Your task to perform on an android device: Open ESPN.com Image 0: 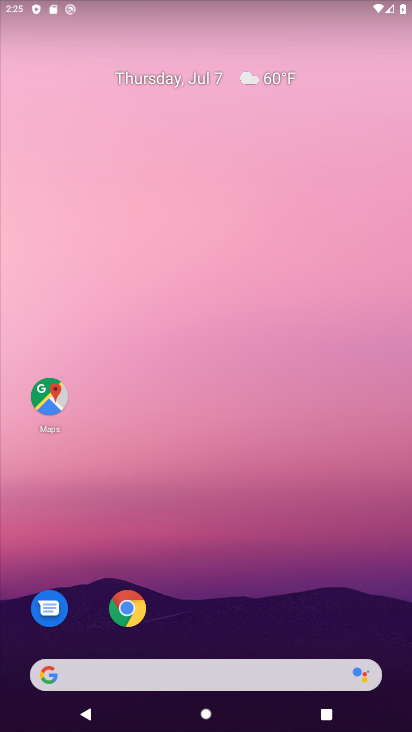
Step 0: click (124, 607)
Your task to perform on an android device: Open ESPN.com Image 1: 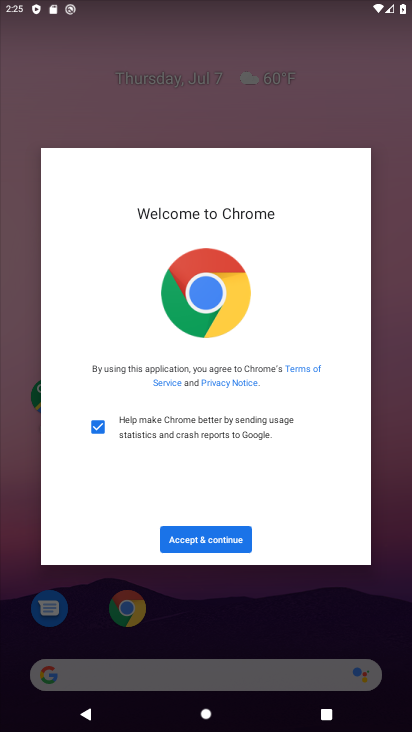
Step 1: click (205, 539)
Your task to perform on an android device: Open ESPN.com Image 2: 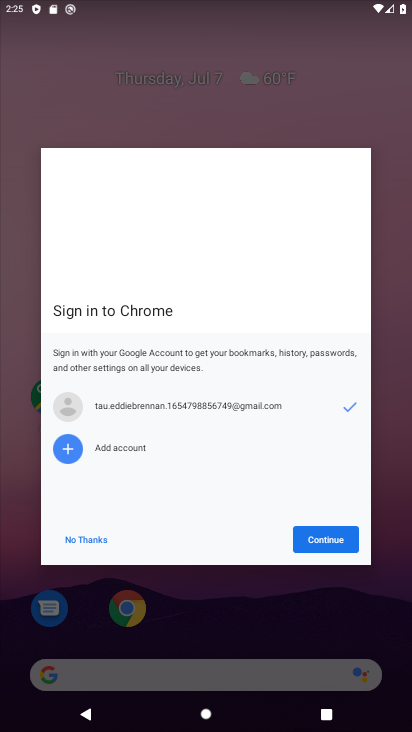
Step 2: click (325, 539)
Your task to perform on an android device: Open ESPN.com Image 3: 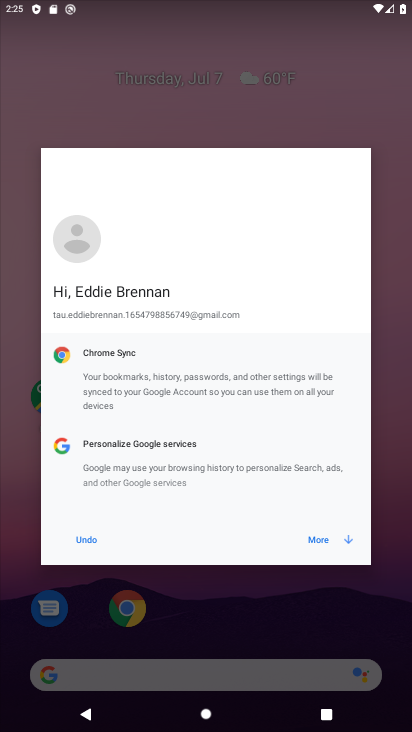
Step 3: click (329, 536)
Your task to perform on an android device: Open ESPN.com Image 4: 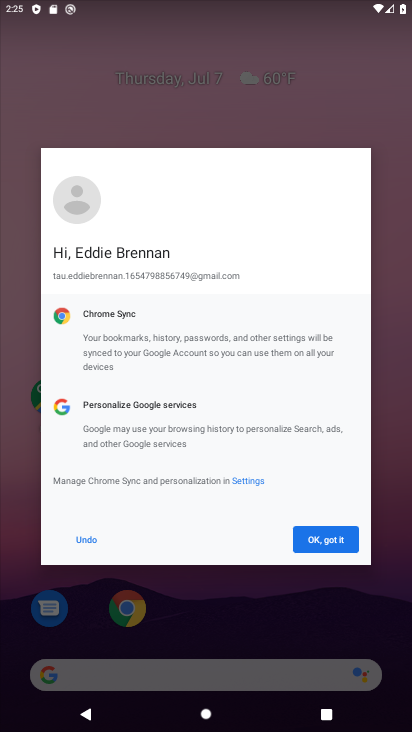
Step 4: click (312, 540)
Your task to perform on an android device: Open ESPN.com Image 5: 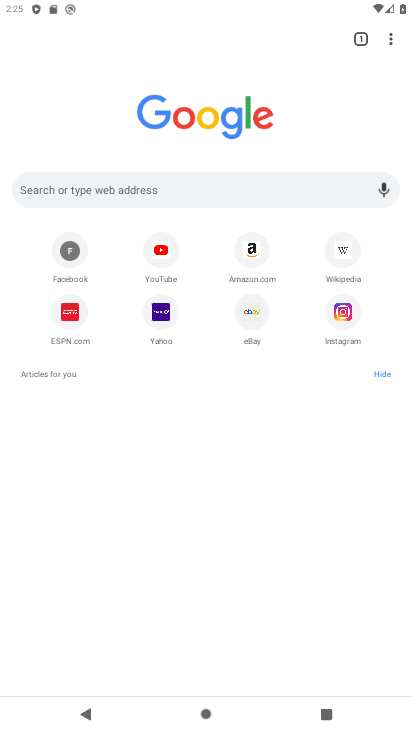
Step 5: click (106, 181)
Your task to perform on an android device: Open ESPN.com Image 6: 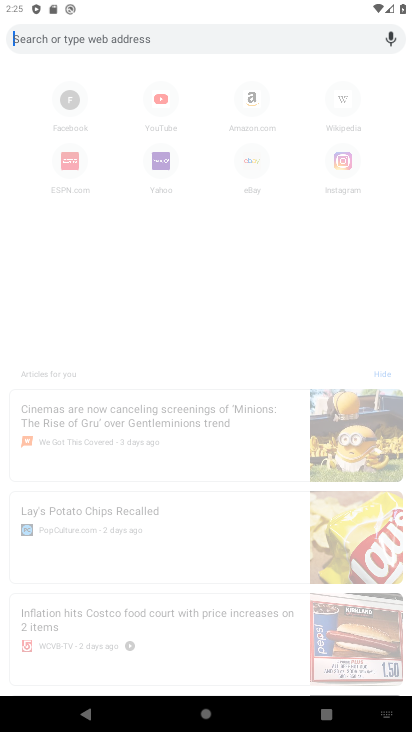
Step 6: type "espn"
Your task to perform on an android device: Open ESPN.com Image 7: 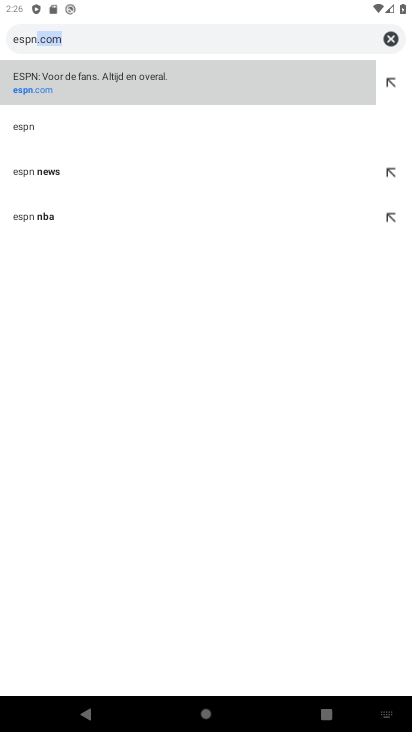
Step 7: click (98, 83)
Your task to perform on an android device: Open ESPN.com Image 8: 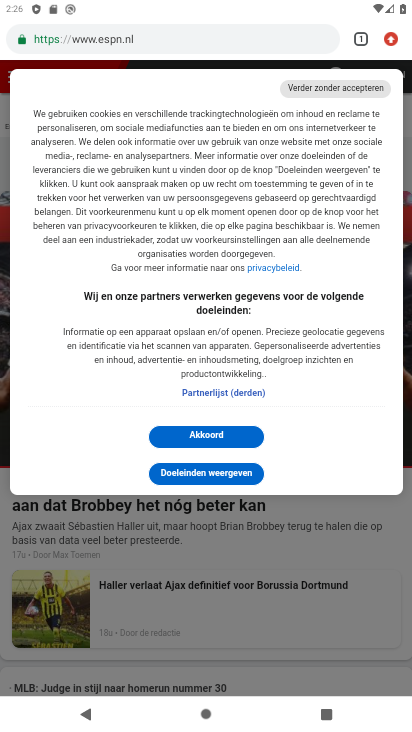
Step 8: click (208, 430)
Your task to perform on an android device: Open ESPN.com Image 9: 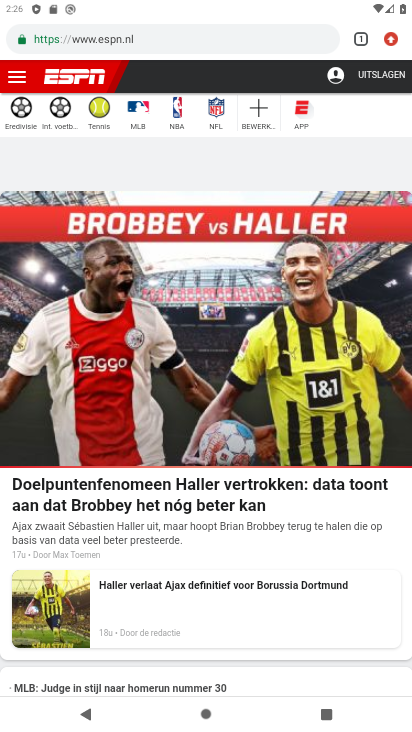
Step 9: task complete